Your task to perform on an android device: Clear the shopping cart on walmart.com. Add "bose quietcomfort 35" to the cart on walmart.com, then select checkout. Image 0: 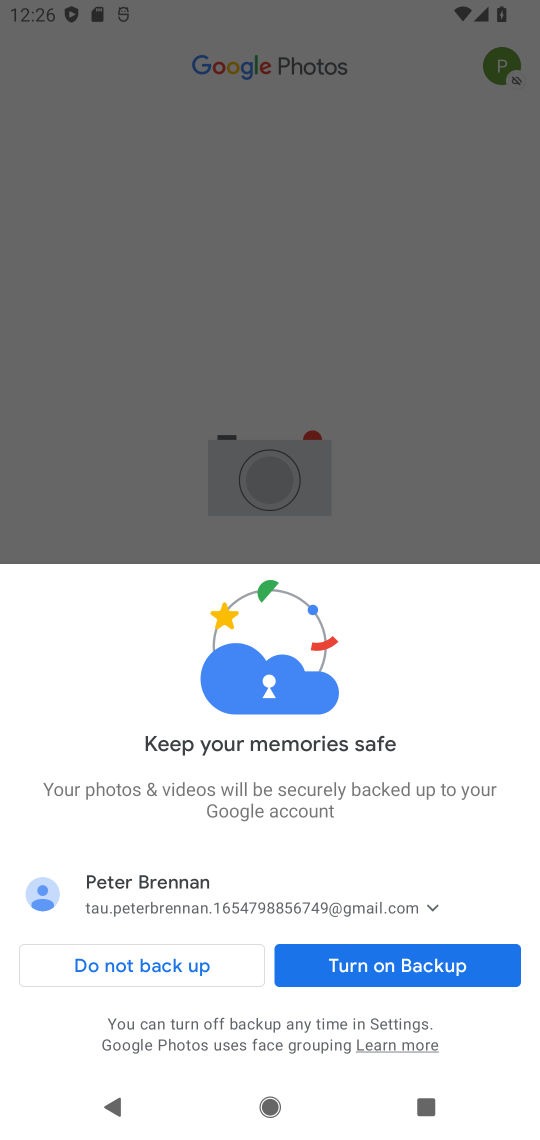
Step 0: press home button
Your task to perform on an android device: Clear the shopping cart on walmart.com. Add "bose quietcomfort 35" to the cart on walmart.com, then select checkout. Image 1: 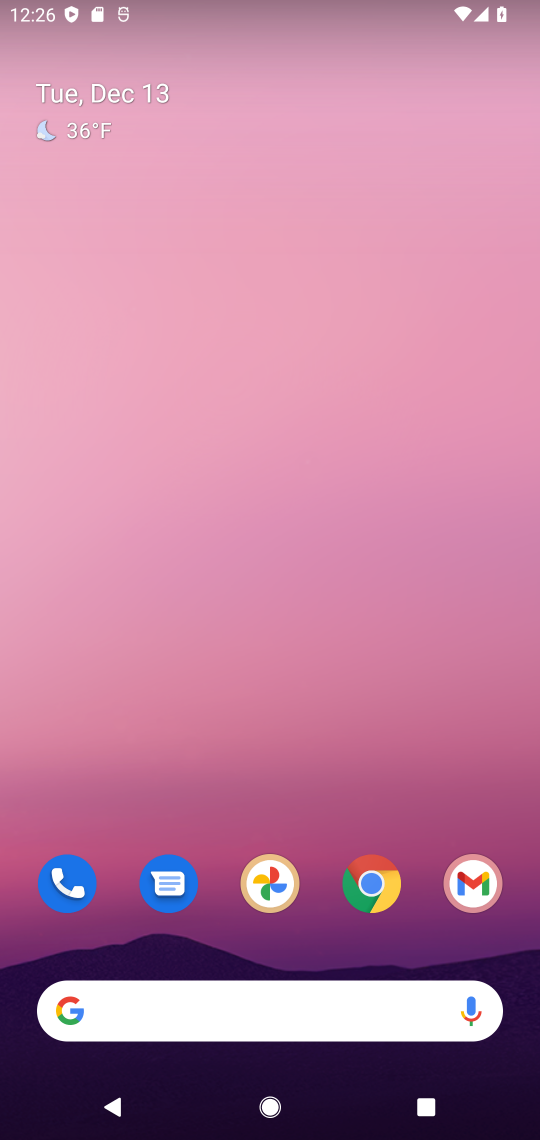
Step 1: drag from (244, 700) to (214, 54)
Your task to perform on an android device: Clear the shopping cart on walmart.com. Add "bose quietcomfort 35" to the cart on walmart.com, then select checkout. Image 2: 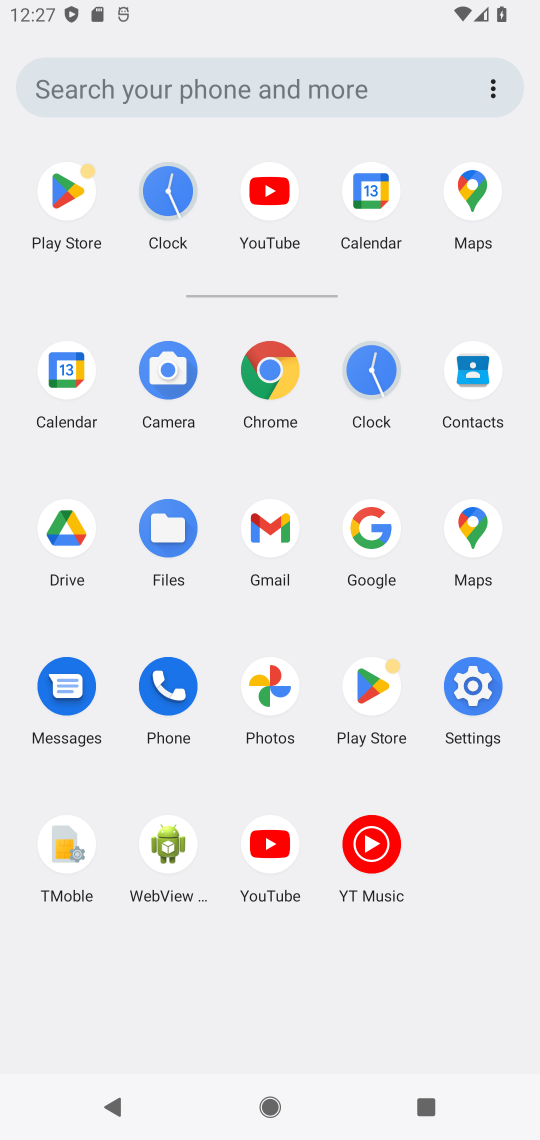
Step 2: click (374, 530)
Your task to perform on an android device: Clear the shopping cart on walmart.com. Add "bose quietcomfort 35" to the cart on walmart.com, then select checkout. Image 3: 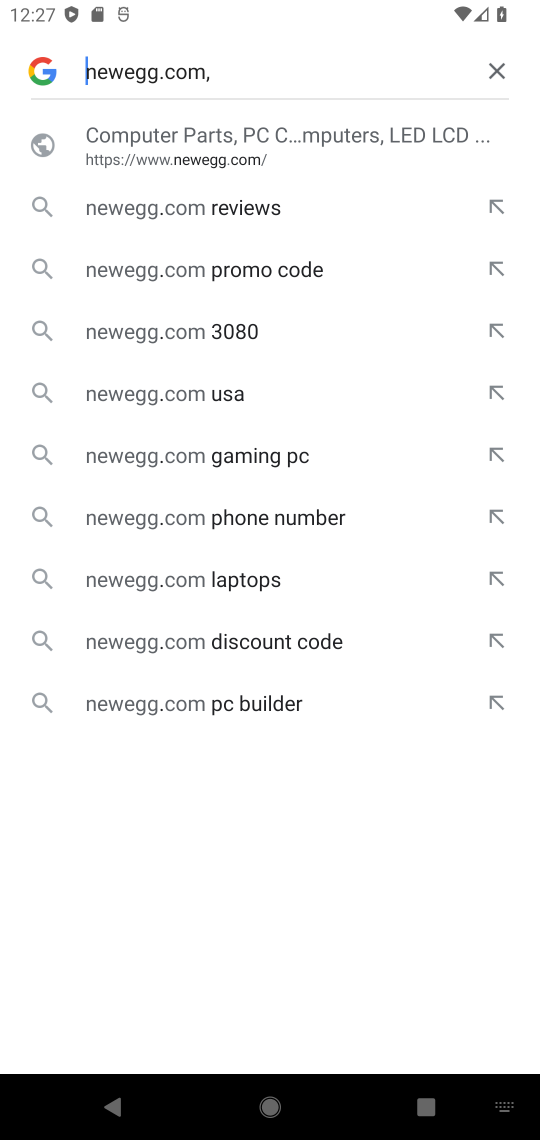
Step 3: click (235, 141)
Your task to perform on an android device: Clear the shopping cart on walmart.com. Add "bose quietcomfort 35" to the cart on walmart.com, then select checkout. Image 4: 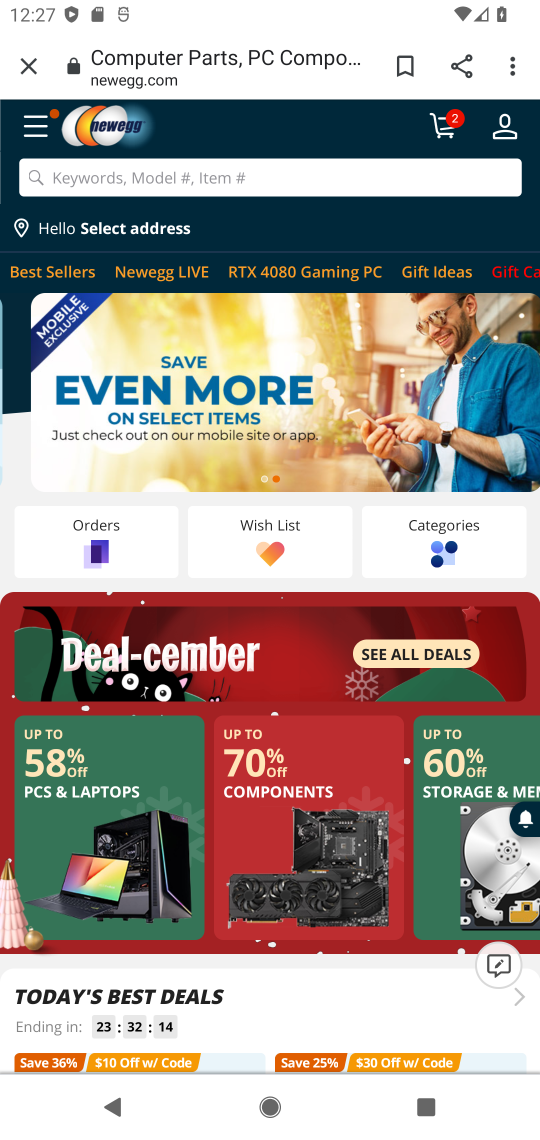
Step 4: click (443, 129)
Your task to perform on an android device: Clear the shopping cart on walmart.com. Add "bose quietcomfort 35" to the cart on walmart.com, then select checkout. Image 5: 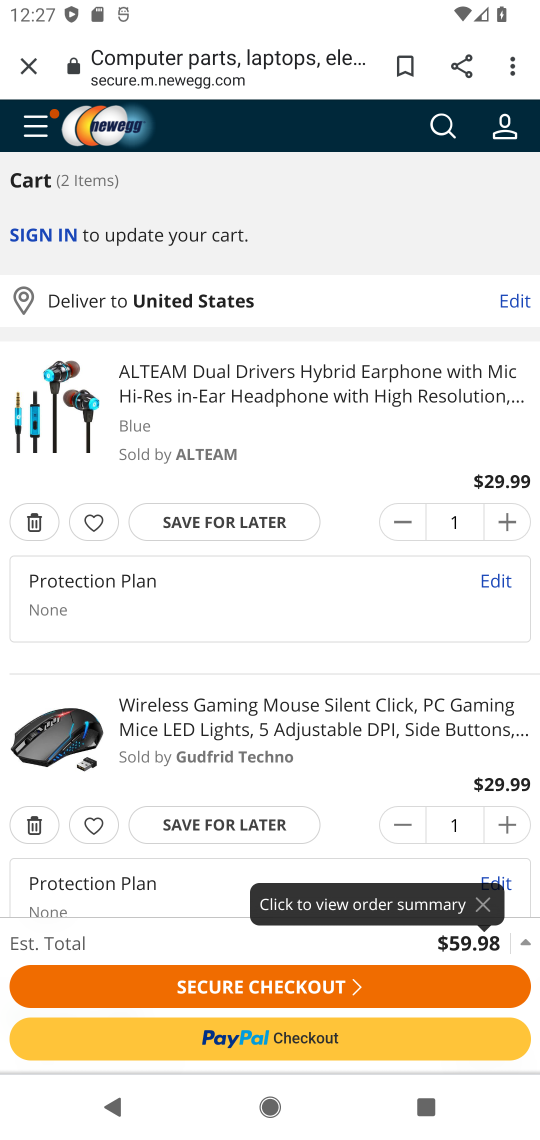
Step 5: click (33, 522)
Your task to perform on an android device: Clear the shopping cart on walmart.com. Add "bose quietcomfort 35" to the cart on walmart.com, then select checkout. Image 6: 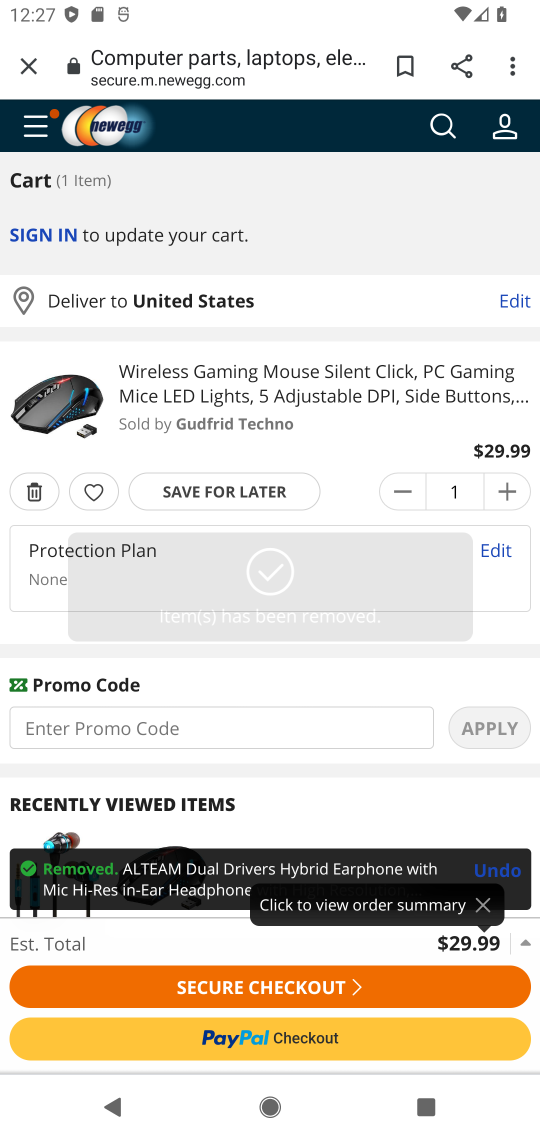
Step 6: click (36, 494)
Your task to perform on an android device: Clear the shopping cart on walmart.com. Add "bose quietcomfort 35" to the cart on walmart.com, then select checkout. Image 7: 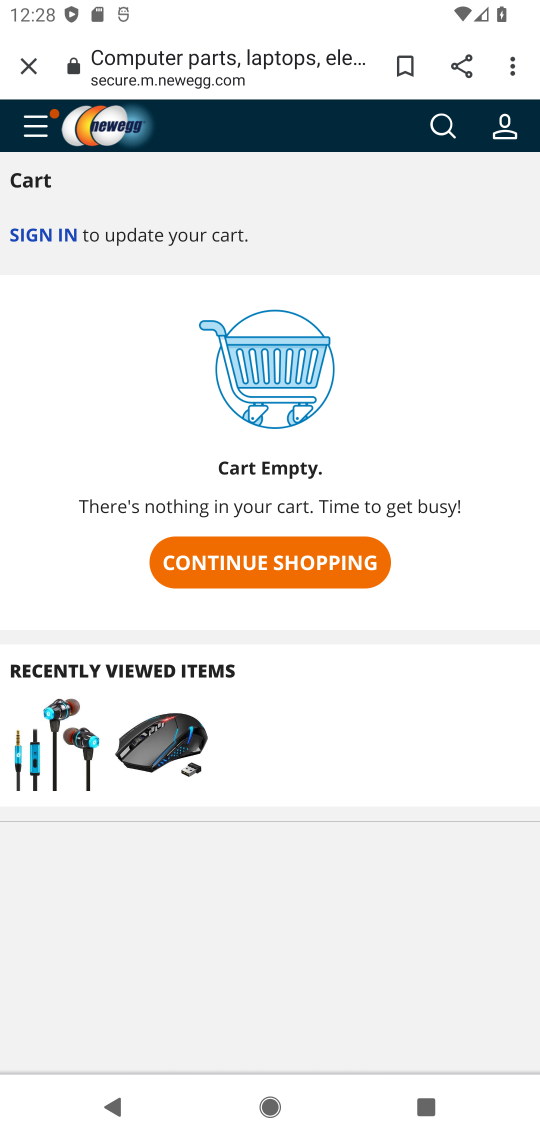
Step 7: click (442, 125)
Your task to perform on an android device: Clear the shopping cart on walmart.com. Add "bose quietcomfort 35" to the cart on walmart.com, then select checkout. Image 8: 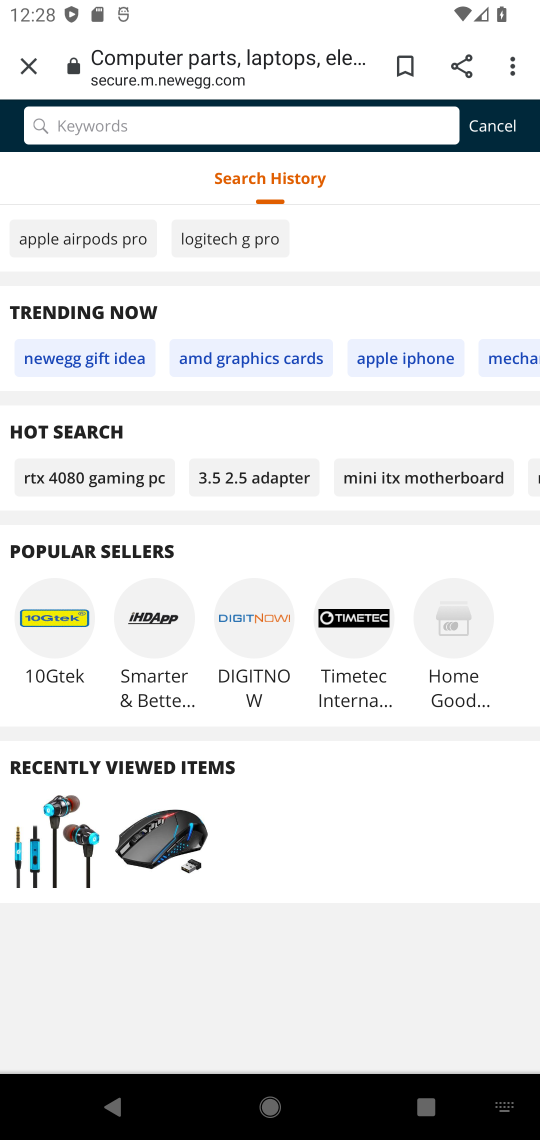
Step 8: type "bose quietcomfort 35"
Your task to perform on an android device: Clear the shopping cart on walmart.com. Add "bose quietcomfort 35" to the cart on walmart.com, then select checkout. Image 9: 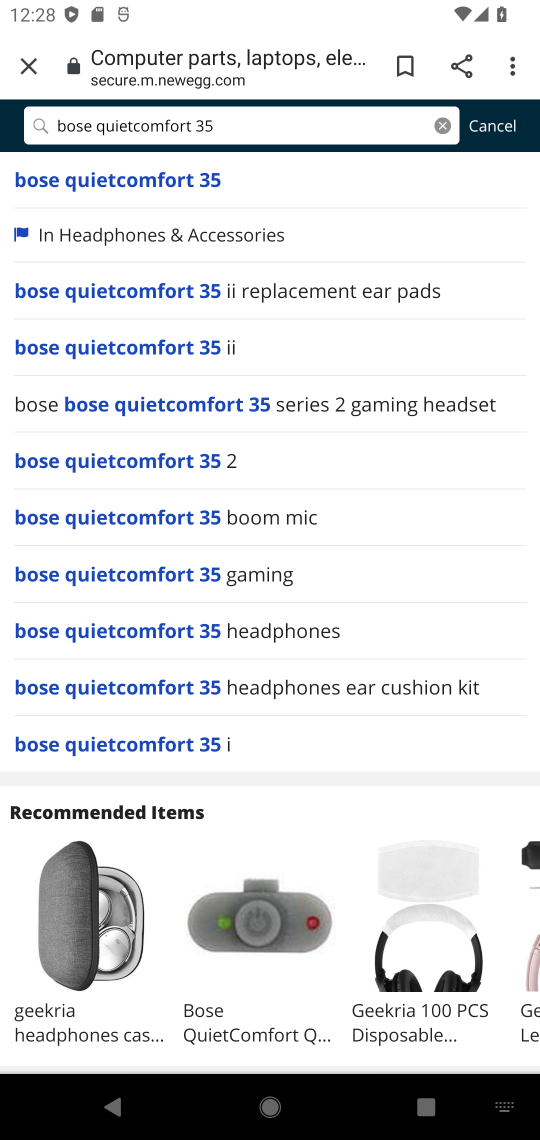
Step 9: click (200, 193)
Your task to perform on an android device: Clear the shopping cart on walmart.com. Add "bose quietcomfort 35" to the cart on walmart.com, then select checkout. Image 10: 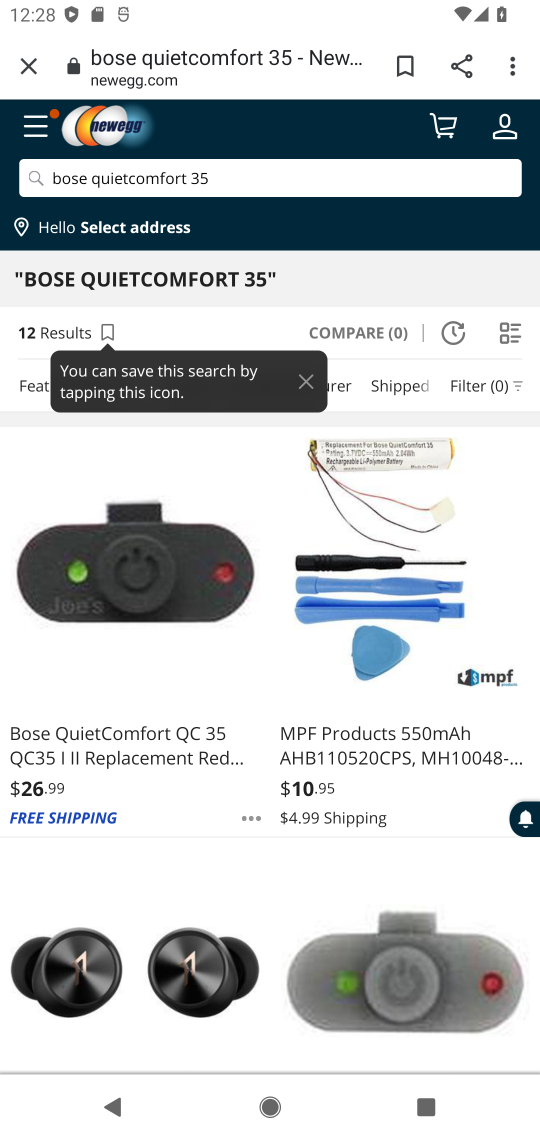
Step 10: click (92, 753)
Your task to perform on an android device: Clear the shopping cart on walmart.com. Add "bose quietcomfort 35" to the cart on walmart.com, then select checkout. Image 11: 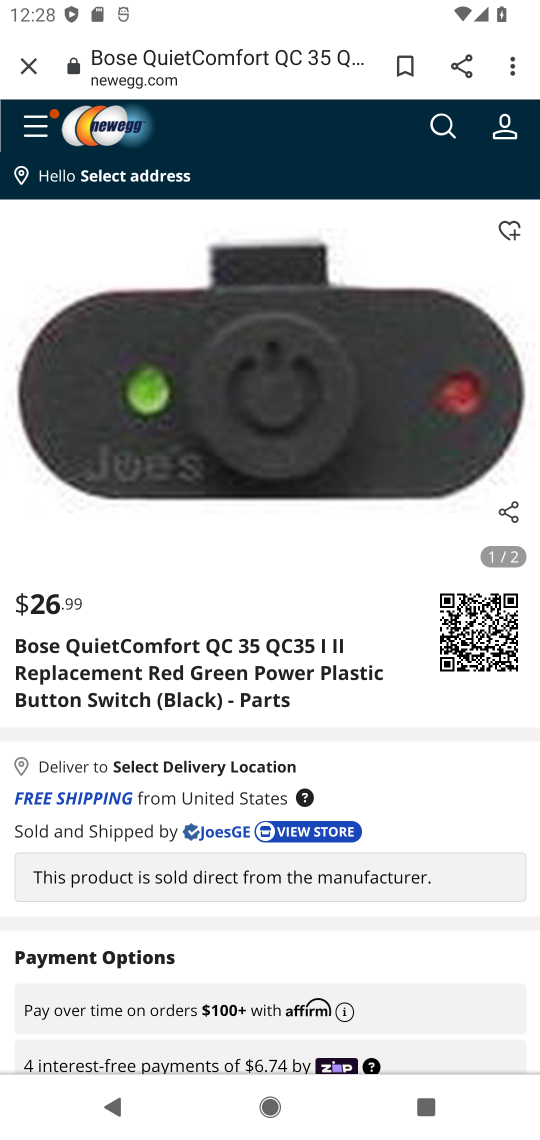
Step 11: drag from (268, 679) to (277, 515)
Your task to perform on an android device: Clear the shopping cart on walmart.com. Add "bose quietcomfort 35" to the cart on walmart.com, then select checkout. Image 12: 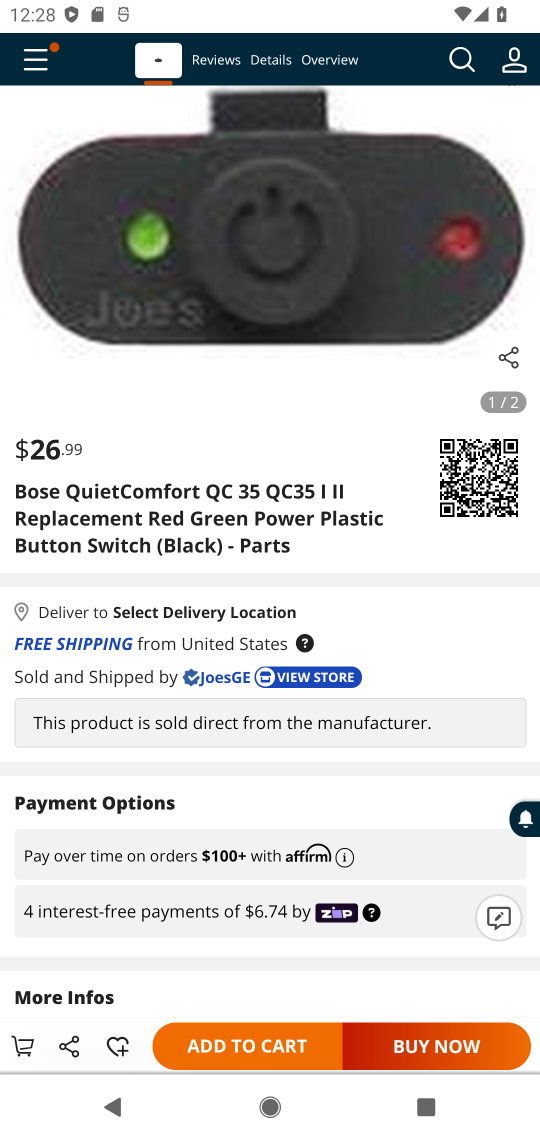
Step 12: click (221, 1057)
Your task to perform on an android device: Clear the shopping cart on walmart.com. Add "bose quietcomfort 35" to the cart on walmart.com, then select checkout. Image 13: 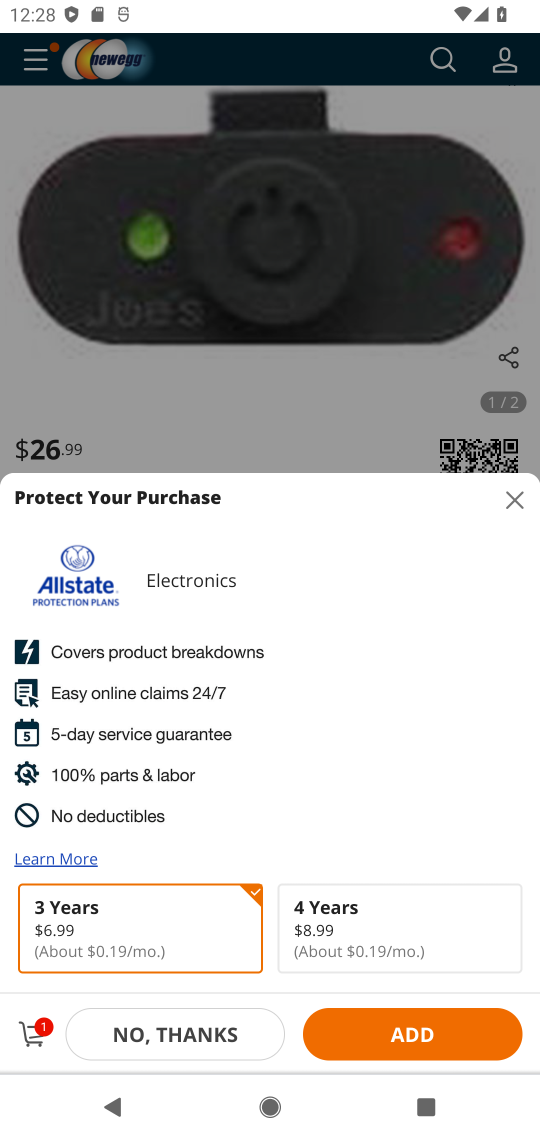
Step 13: click (35, 1024)
Your task to perform on an android device: Clear the shopping cart on walmart.com. Add "bose quietcomfort 35" to the cart on walmart.com, then select checkout. Image 14: 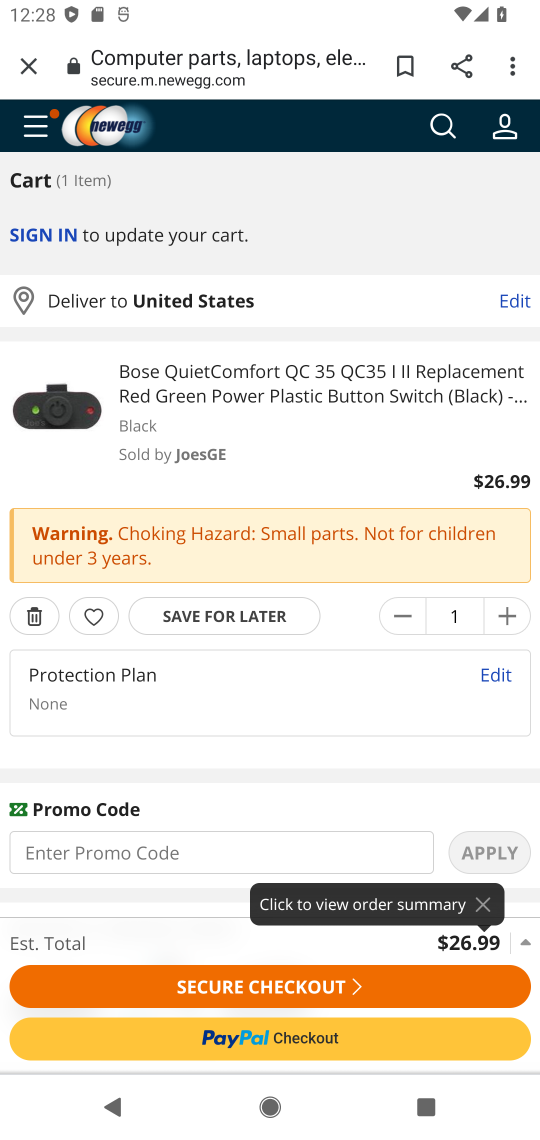
Step 14: click (261, 974)
Your task to perform on an android device: Clear the shopping cart on walmart.com. Add "bose quietcomfort 35" to the cart on walmart.com, then select checkout. Image 15: 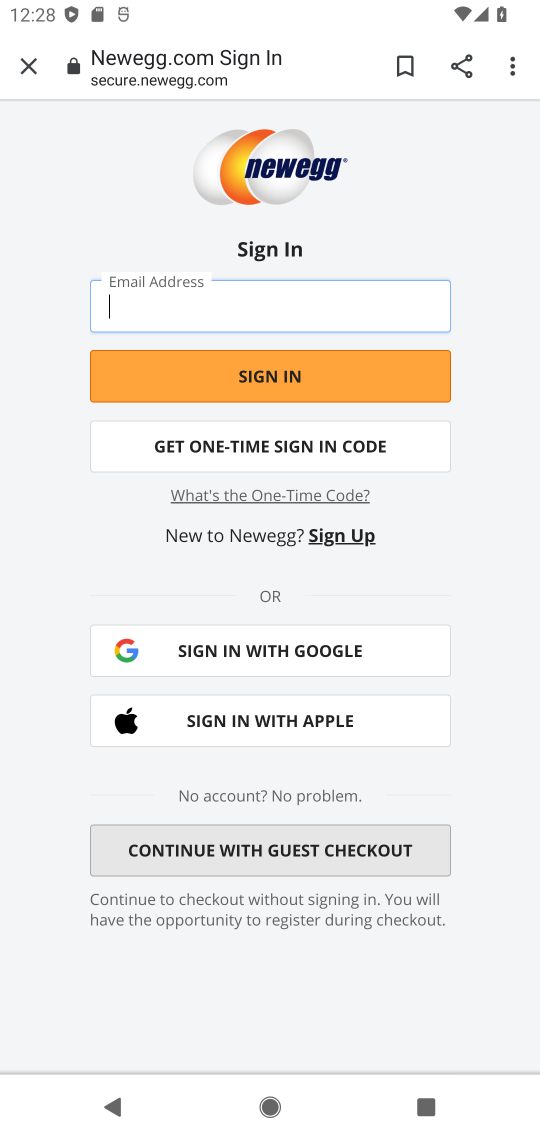
Step 15: task complete